Your task to perform on an android device: allow notifications from all sites in the chrome app Image 0: 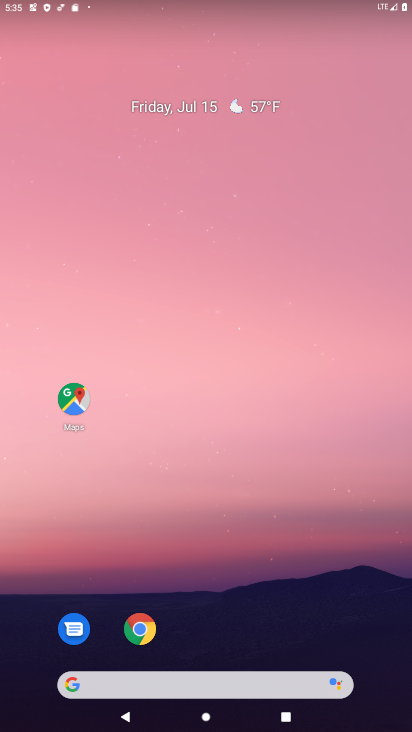
Step 0: press home button
Your task to perform on an android device: allow notifications from all sites in the chrome app Image 1: 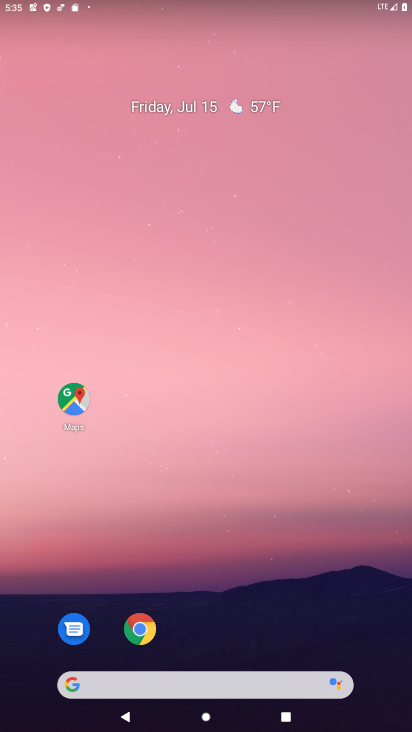
Step 1: drag from (257, 624) to (298, 84)
Your task to perform on an android device: allow notifications from all sites in the chrome app Image 2: 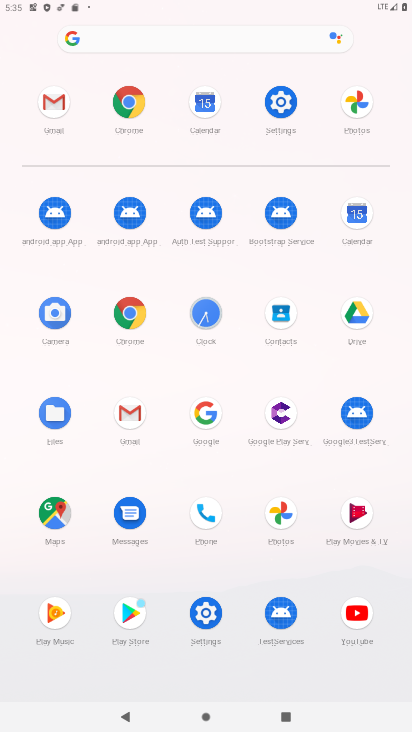
Step 2: click (125, 105)
Your task to perform on an android device: allow notifications from all sites in the chrome app Image 3: 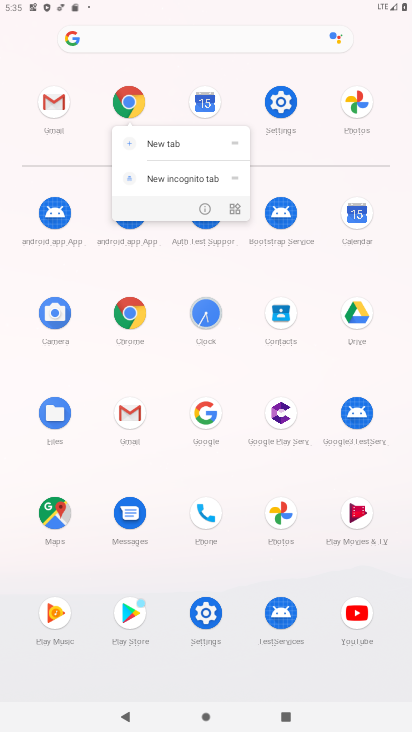
Step 3: click (125, 105)
Your task to perform on an android device: allow notifications from all sites in the chrome app Image 4: 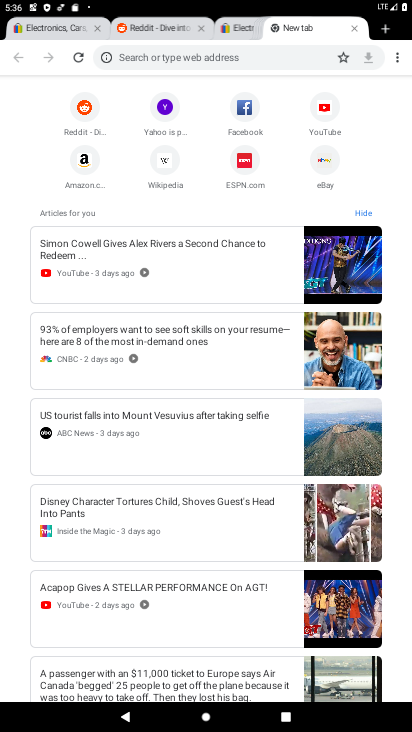
Step 4: click (400, 63)
Your task to perform on an android device: allow notifications from all sites in the chrome app Image 5: 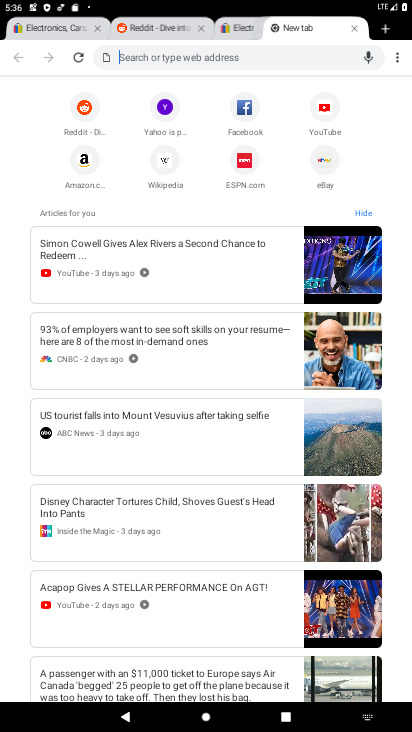
Step 5: drag from (401, 60) to (276, 261)
Your task to perform on an android device: allow notifications from all sites in the chrome app Image 6: 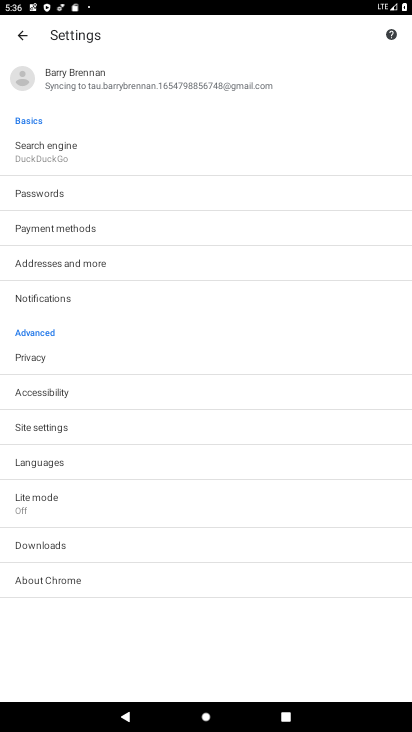
Step 6: click (36, 432)
Your task to perform on an android device: allow notifications from all sites in the chrome app Image 7: 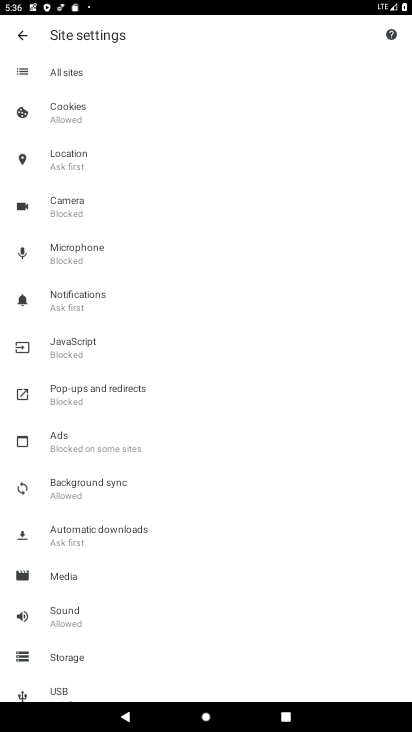
Step 7: click (82, 301)
Your task to perform on an android device: allow notifications from all sites in the chrome app Image 8: 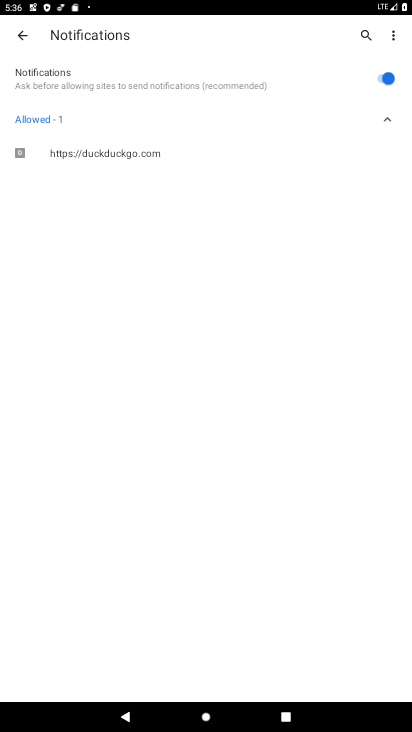
Step 8: task complete